Your task to perform on an android device: What are the new products by Samsung? Image 0: 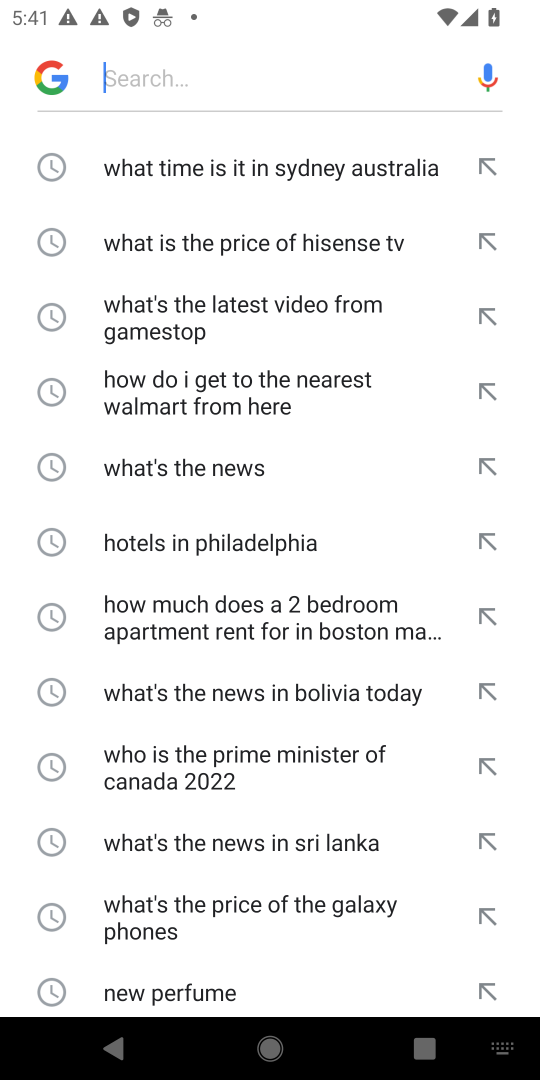
Step 0: click (208, 81)
Your task to perform on an android device: What are the new products by Samsung? Image 1: 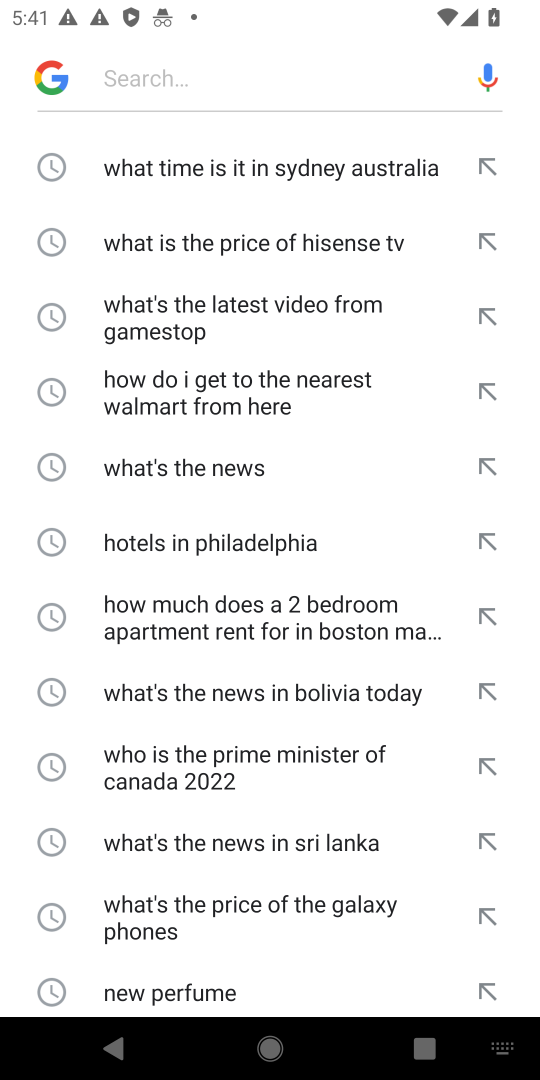
Step 1: click (173, 76)
Your task to perform on an android device: What are the new products by Samsung? Image 2: 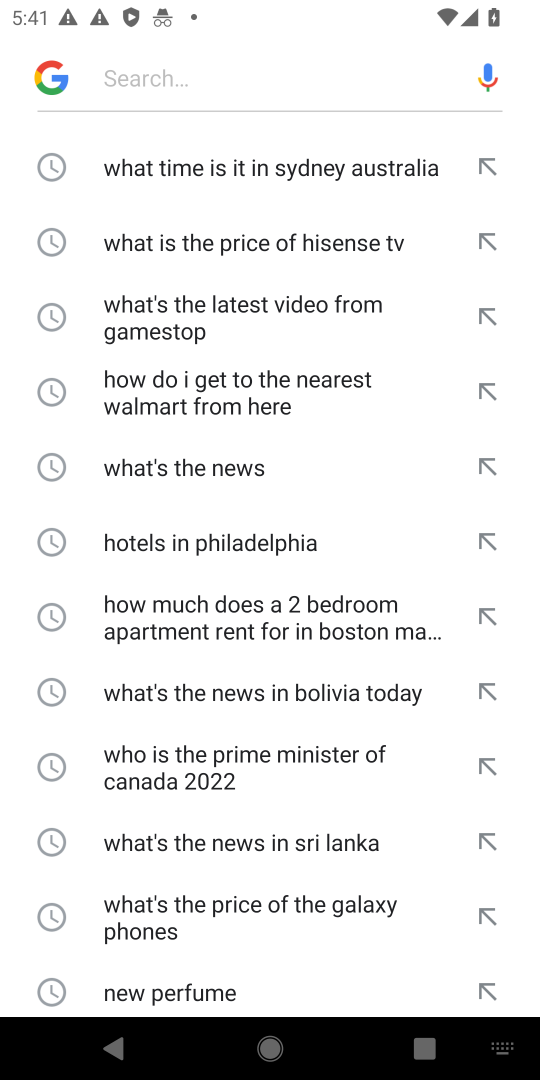
Step 2: type "What are the new products by Samsung?"
Your task to perform on an android device: What are the new products by Samsung? Image 3: 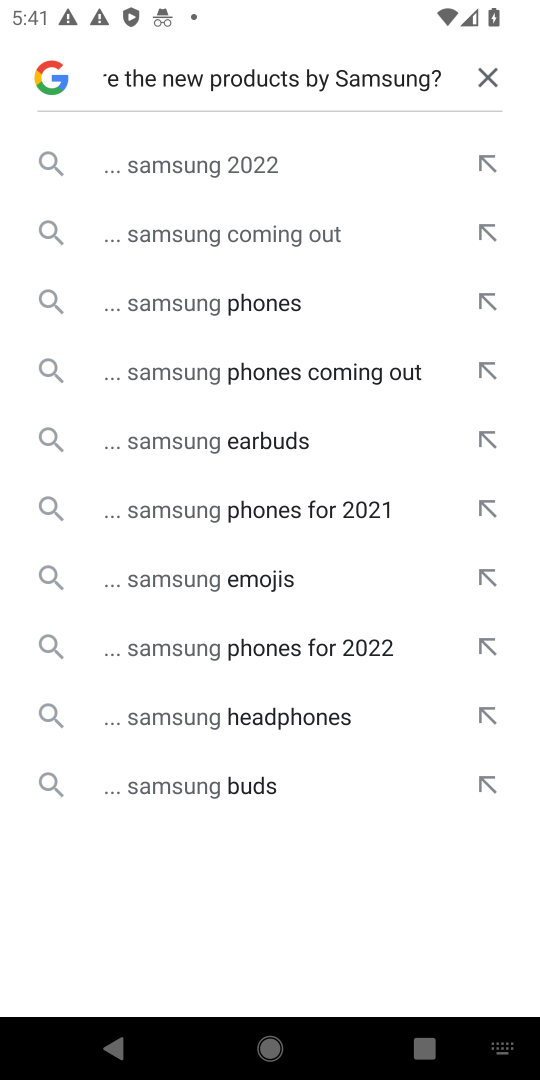
Step 3: click (193, 154)
Your task to perform on an android device: What are the new products by Samsung? Image 4: 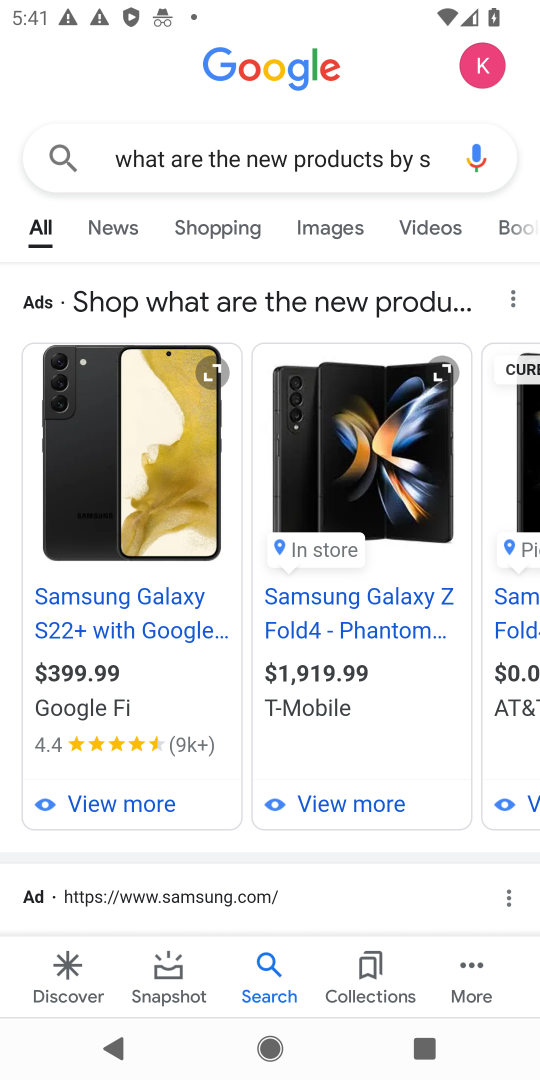
Step 4: task complete